Your task to perform on an android device: What's on my calendar today? Image 0: 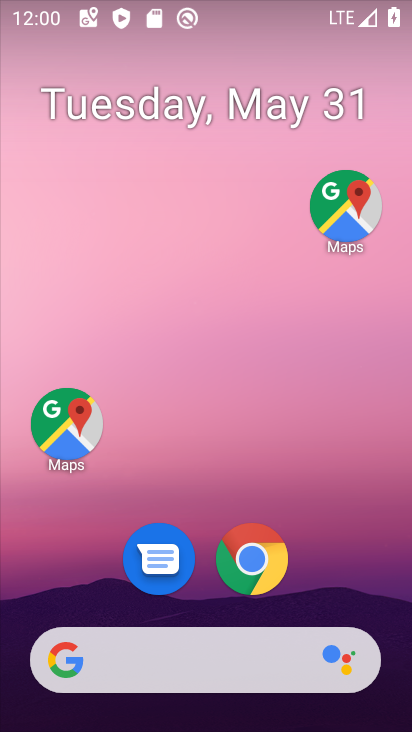
Step 0: drag from (334, 540) to (287, 134)
Your task to perform on an android device: What's on my calendar today? Image 1: 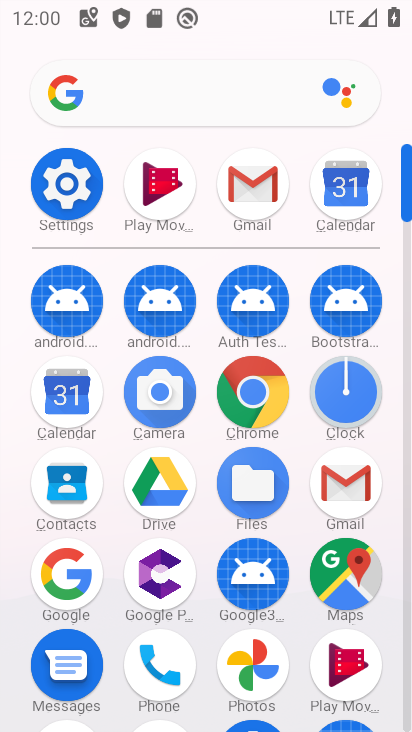
Step 1: click (66, 391)
Your task to perform on an android device: What's on my calendar today? Image 2: 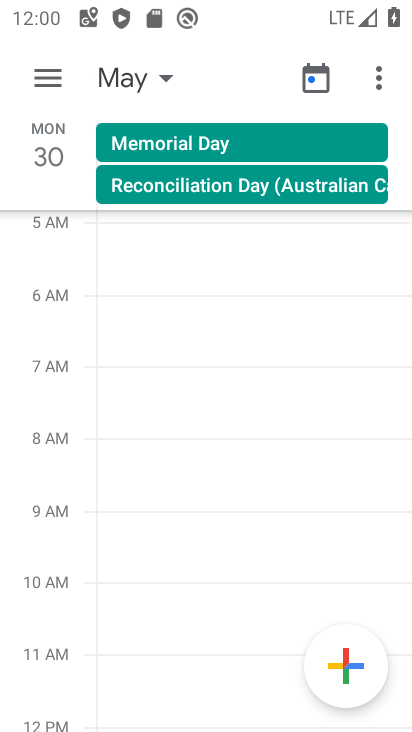
Step 2: task complete